Your task to perform on an android device: delete browsing data in the chrome app Image 0: 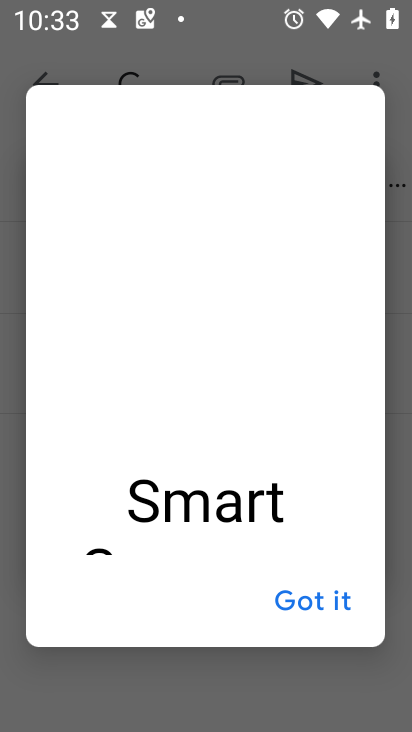
Step 0: press home button
Your task to perform on an android device: delete browsing data in the chrome app Image 1: 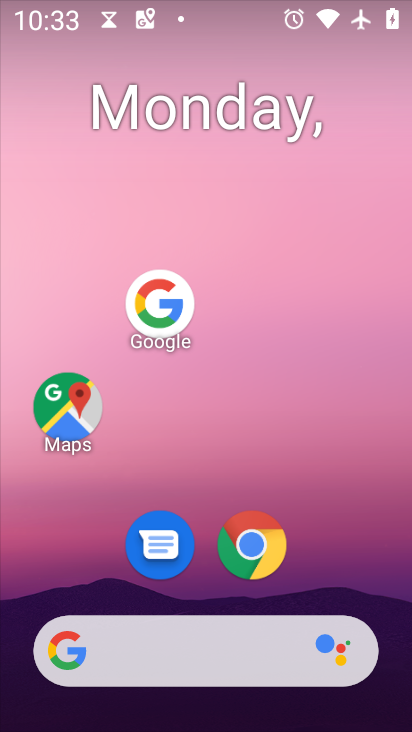
Step 1: click (247, 537)
Your task to perform on an android device: delete browsing data in the chrome app Image 2: 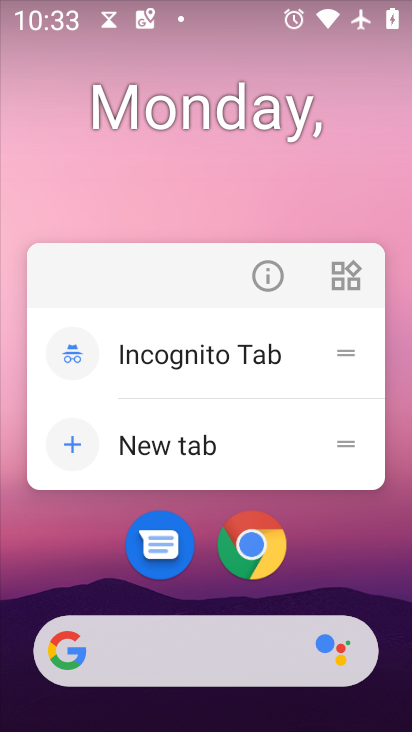
Step 2: click (251, 548)
Your task to perform on an android device: delete browsing data in the chrome app Image 3: 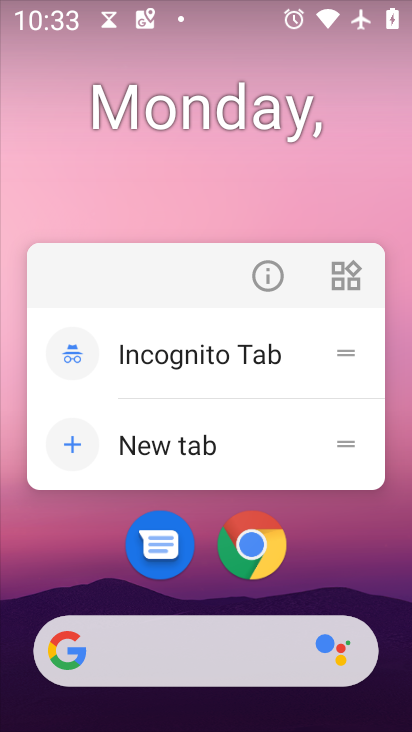
Step 3: click (248, 564)
Your task to perform on an android device: delete browsing data in the chrome app Image 4: 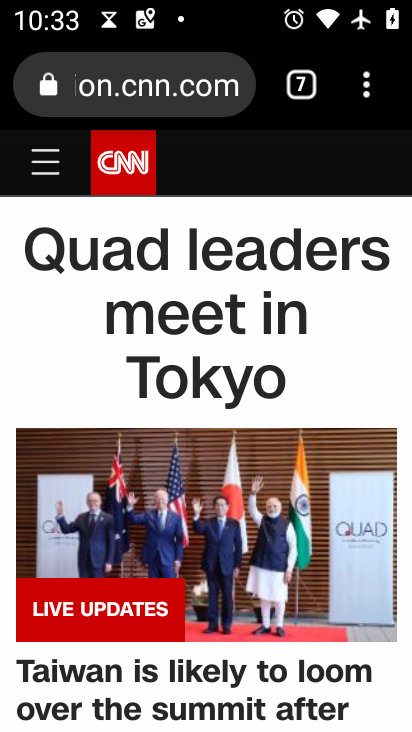
Step 4: drag from (368, 97) to (248, 591)
Your task to perform on an android device: delete browsing data in the chrome app Image 5: 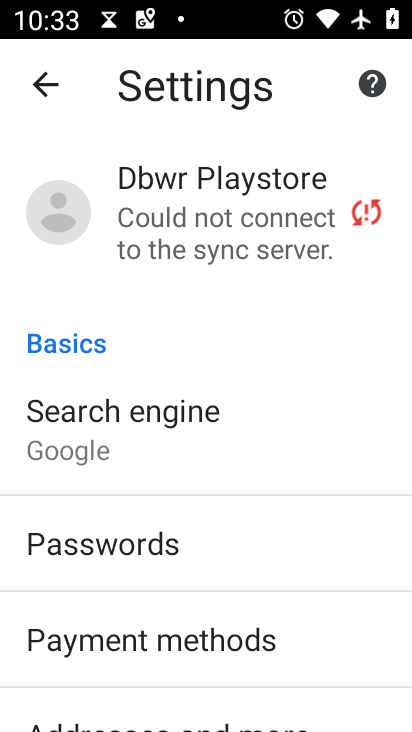
Step 5: drag from (215, 674) to (344, 213)
Your task to perform on an android device: delete browsing data in the chrome app Image 6: 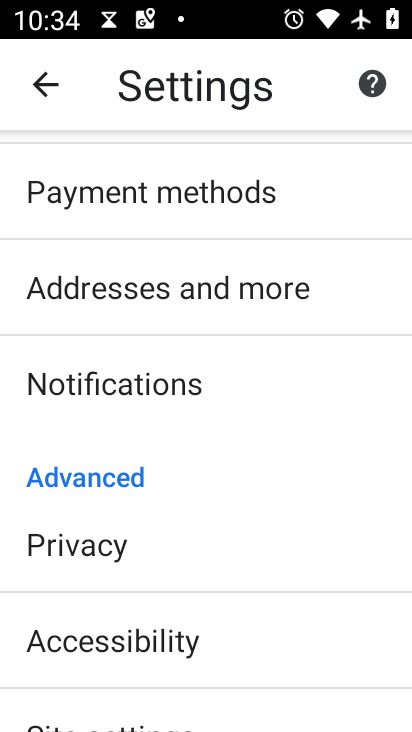
Step 6: drag from (232, 651) to (339, 221)
Your task to perform on an android device: delete browsing data in the chrome app Image 7: 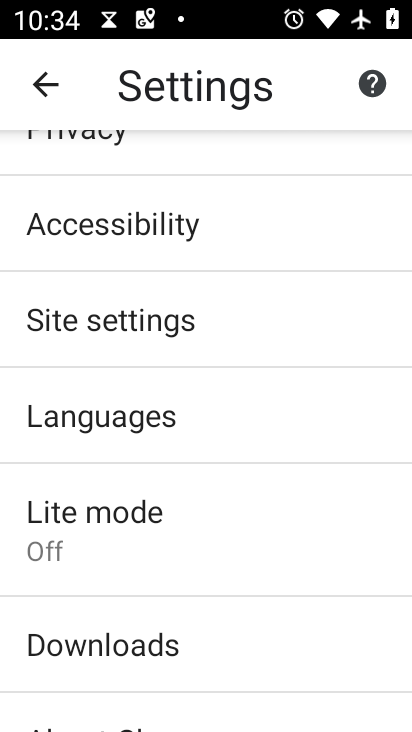
Step 7: drag from (299, 170) to (258, 516)
Your task to perform on an android device: delete browsing data in the chrome app Image 8: 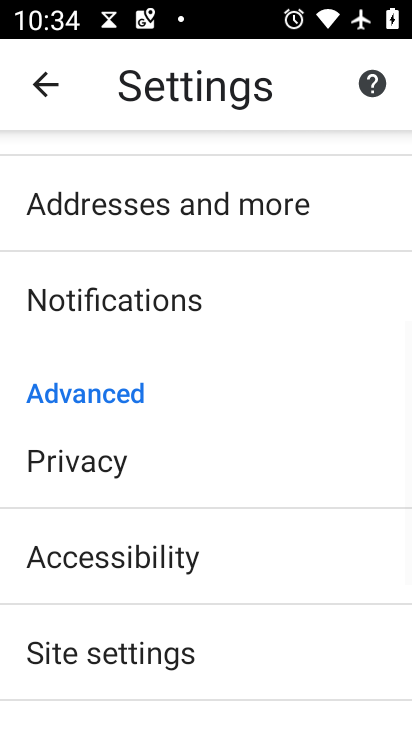
Step 8: click (99, 464)
Your task to perform on an android device: delete browsing data in the chrome app Image 9: 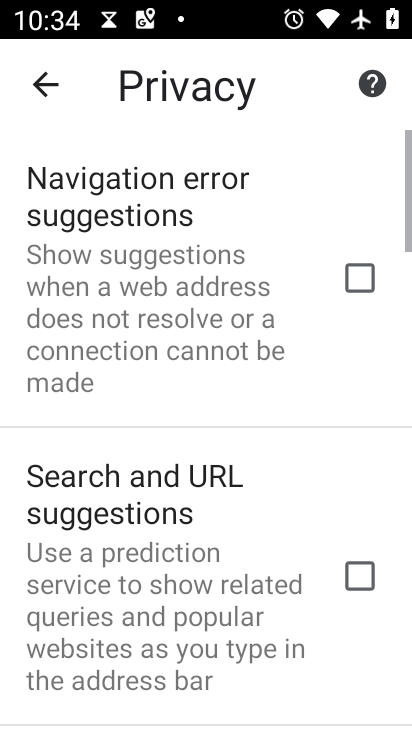
Step 9: drag from (229, 621) to (386, 115)
Your task to perform on an android device: delete browsing data in the chrome app Image 10: 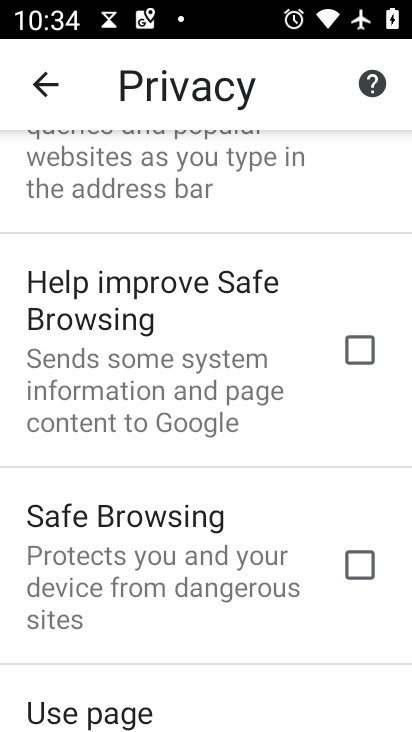
Step 10: drag from (229, 666) to (345, 242)
Your task to perform on an android device: delete browsing data in the chrome app Image 11: 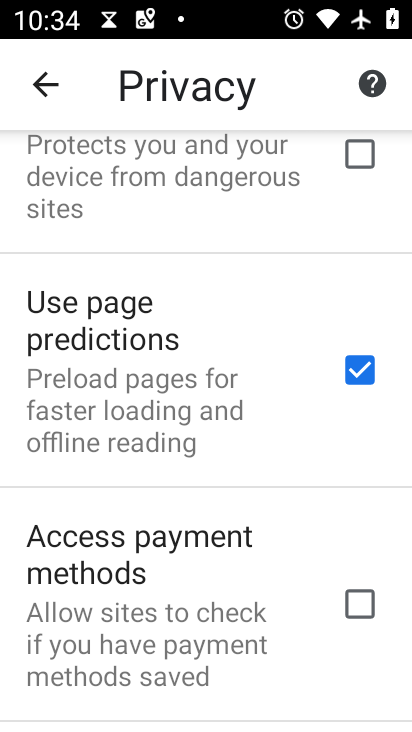
Step 11: drag from (228, 564) to (389, 8)
Your task to perform on an android device: delete browsing data in the chrome app Image 12: 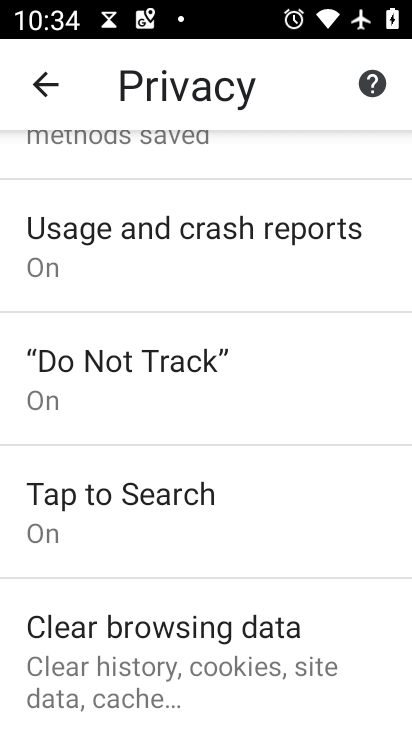
Step 12: drag from (263, 617) to (326, 185)
Your task to perform on an android device: delete browsing data in the chrome app Image 13: 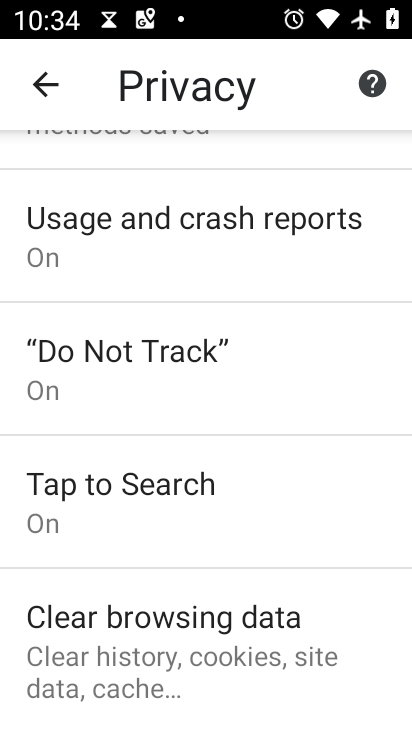
Step 13: click (217, 625)
Your task to perform on an android device: delete browsing data in the chrome app Image 14: 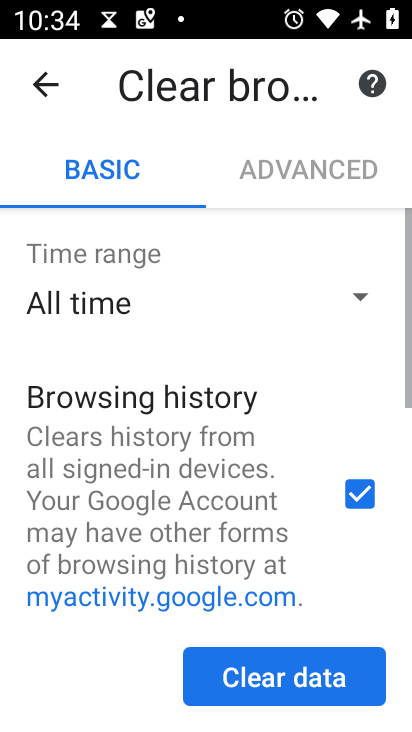
Step 14: drag from (221, 598) to (349, 162)
Your task to perform on an android device: delete browsing data in the chrome app Image 15: 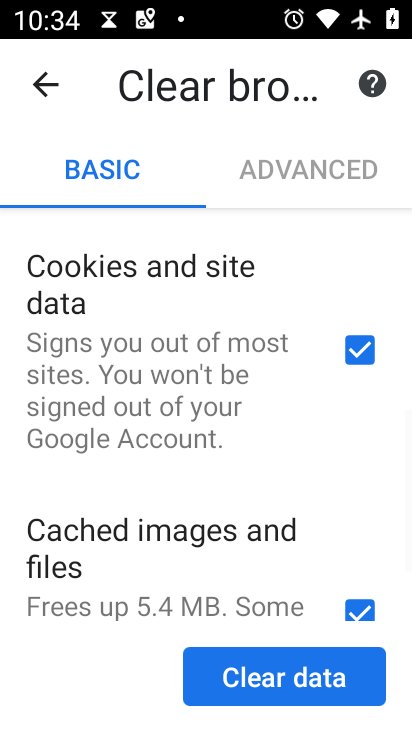
Step 15: drag from (261, 530) to (338, 231)
Your task to perform on an android device: delete browsing data in the chrome app Image 16: 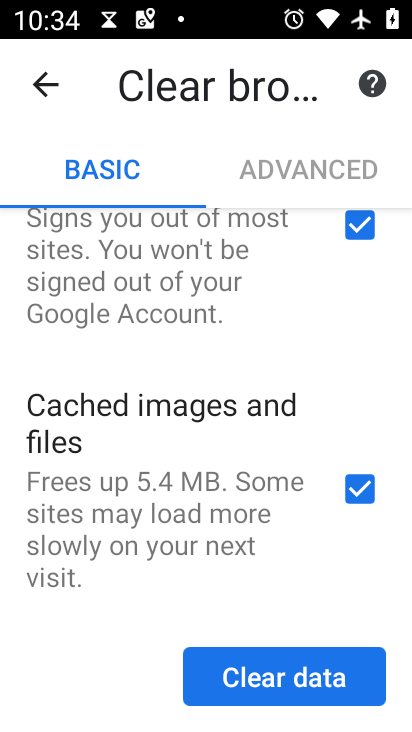
Step 16: click (281, 683)
Your task to perform on an android device: delete browsing data in the chrome app Image 17: 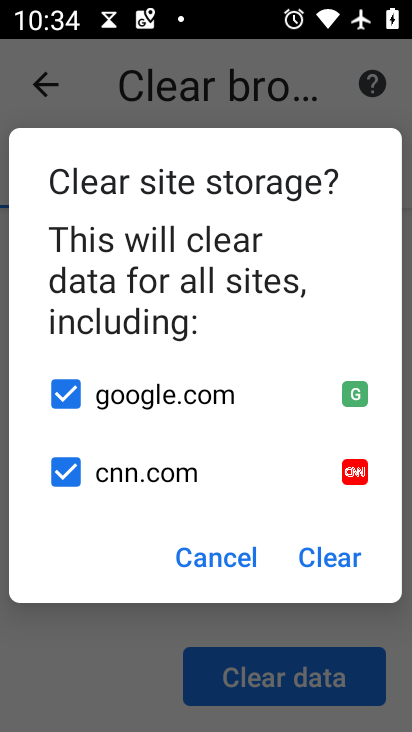
Step 17: click (346, 557)
Your task to perform on an android device: delete browsing data in the chrome app Image 18: 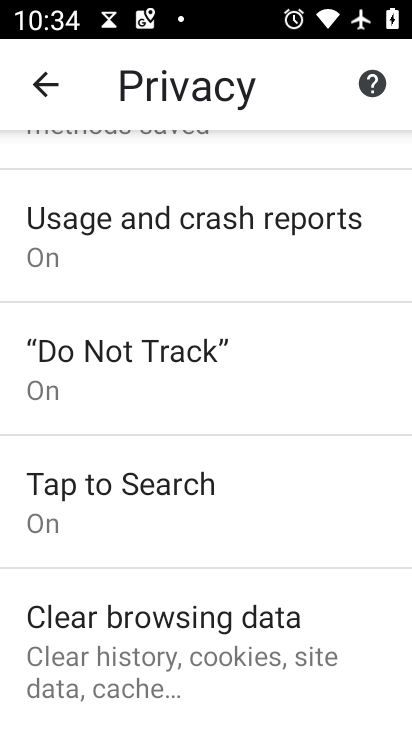
Step 18: task complete